Your task to perform on an android device: delete location history Image 0: 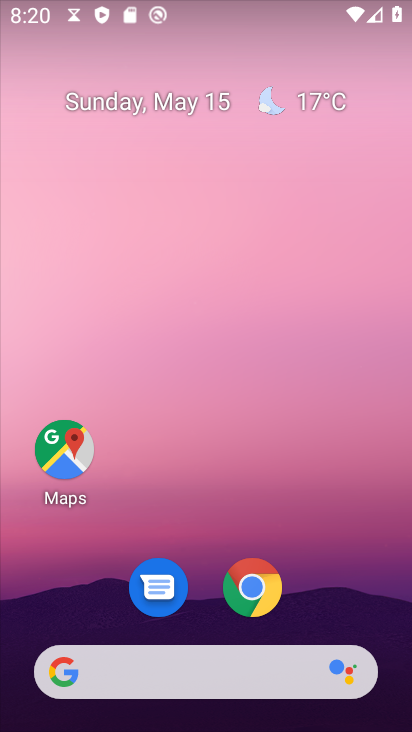
Step 0: drag from (370, 662) to (43, 112)
Your task to perform on an android device: delete location history Image 1: 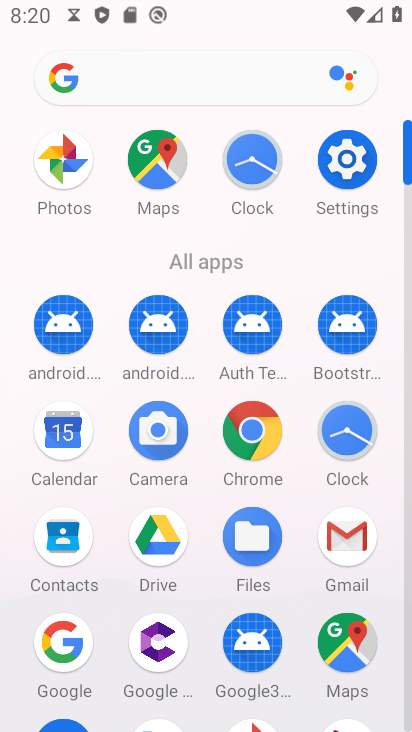
Step 1: click (170, 161)
Your task to perform on an android device: delete location history Image 2: 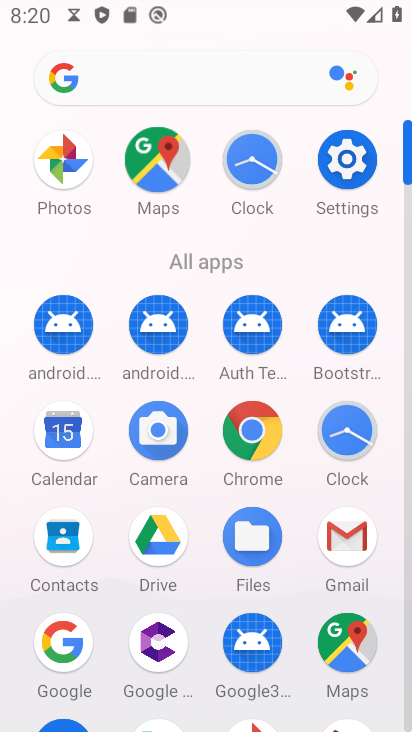
Step 2: click (170, 161)
Your task to perform on an android device: delete location history Image 3: 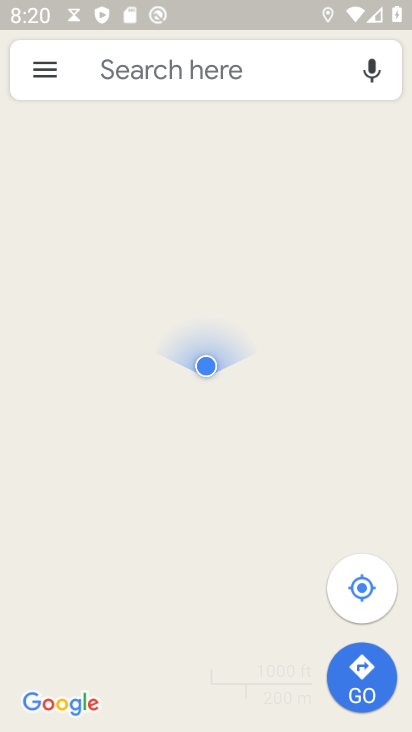
Step 3: click (40, 76)
Your task to perform on an android device: delete location history Image 4: 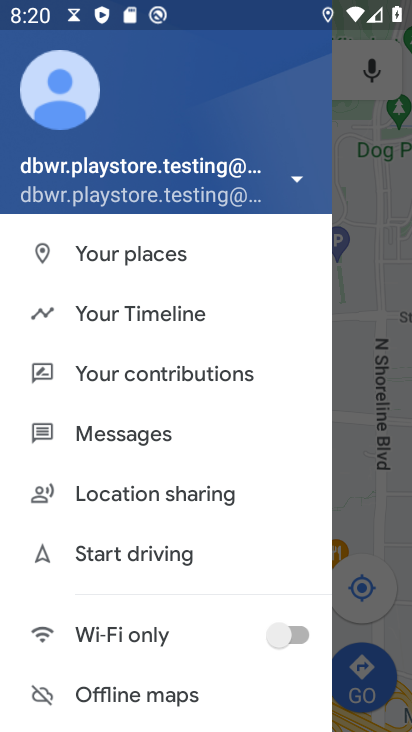
Step 4: click (143, 318)
Your task to perform on an android device: delete location history Image 5: 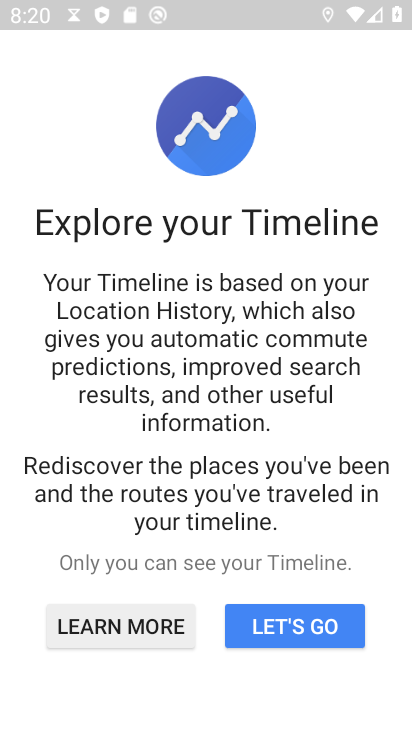
Step 5: click (307, 625)
Your task to perform on an android device: delete location history Image 6: 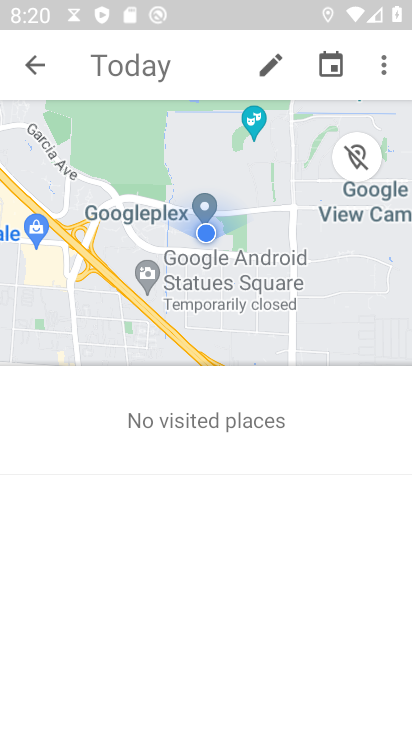
Step 6: click (377, 67)
Your task to perform on an android device: delete location history Image 7: 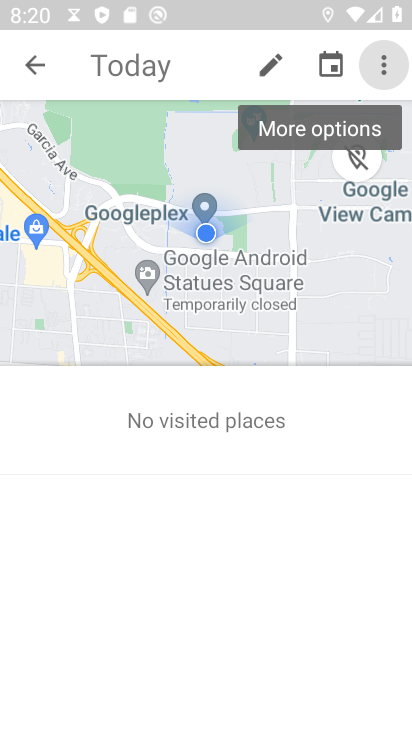
Step 7: click (377, 67)
Your task to perform on an android device: delete location history Image 8: 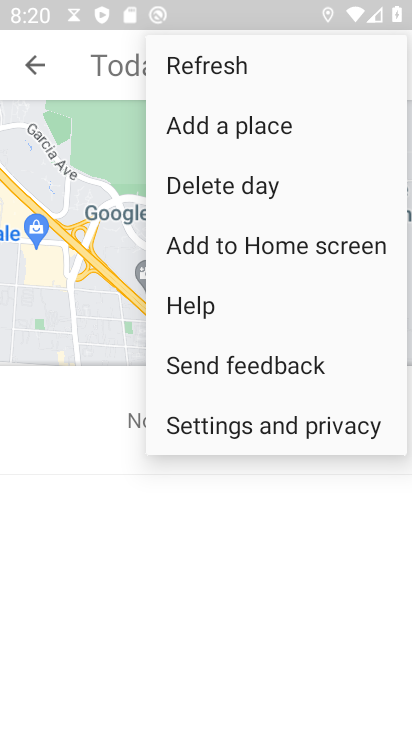
Step 8: click (247, 423)
Your task to perform on an android device: delete location history Image 9: 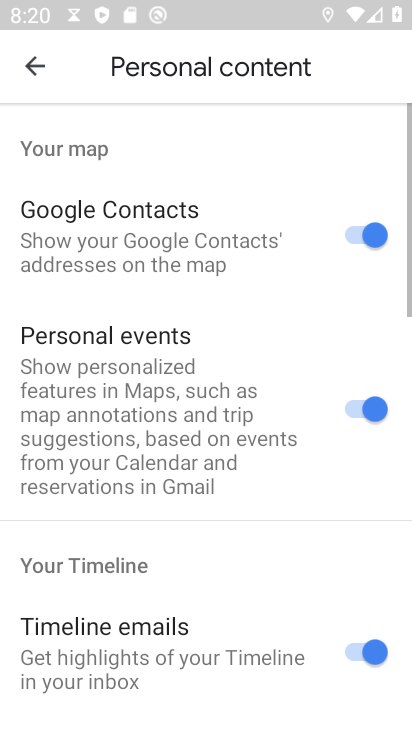
Step 9: drag from (127, 524) to (193, 154)
Your task to perform on an android device: delete location history Image 10: 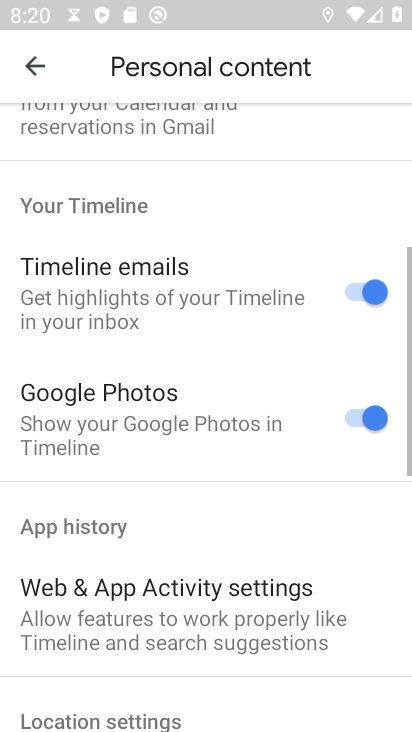
Step 10: drag from (272, 599) to (203, 257)
Your task to perform on an android device: delete location history Image 11: 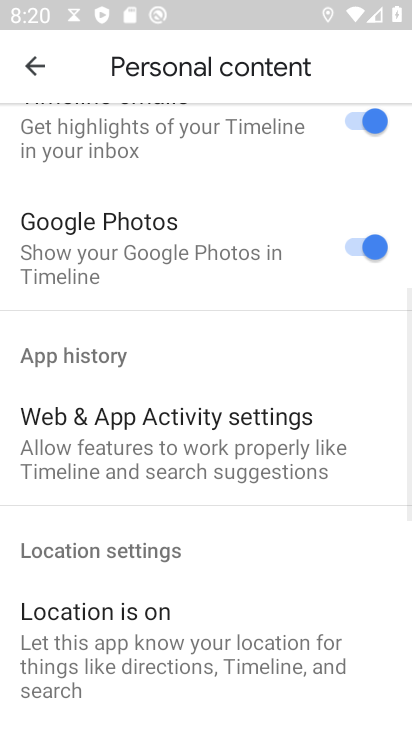
Step 11: drag from (183, 566) to (148, 181)
Your task to perform on an android device: delete location history Image 12: 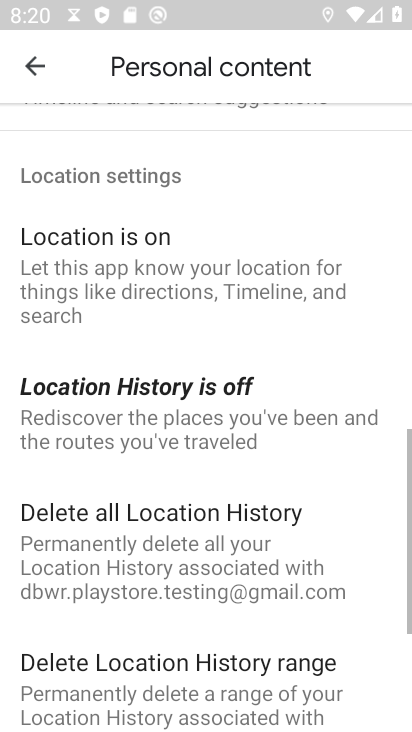
Step 12: drag from (199, 530) to (172, 160)
Your task to perform on an android device: delete location history Image 13: 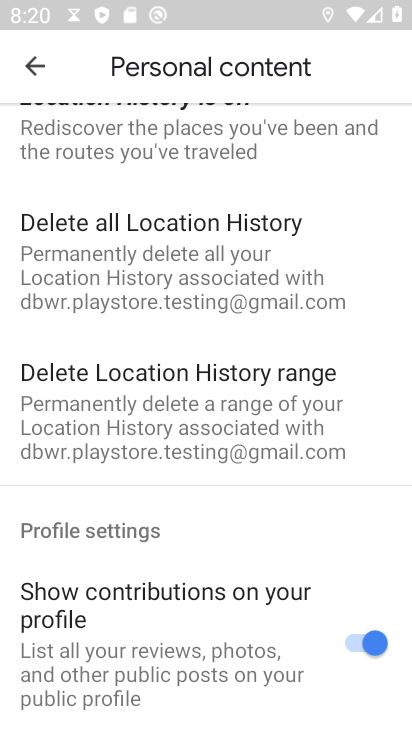
Step 13: click (163, 243)
Your task to perform on an android device: delete location history Image 14: 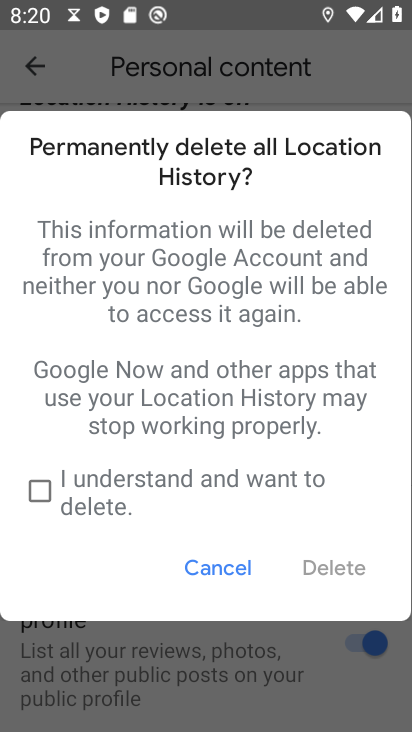
Step 14: click (44, 491)
Your task to perform on an android device: delete location history Image 15: 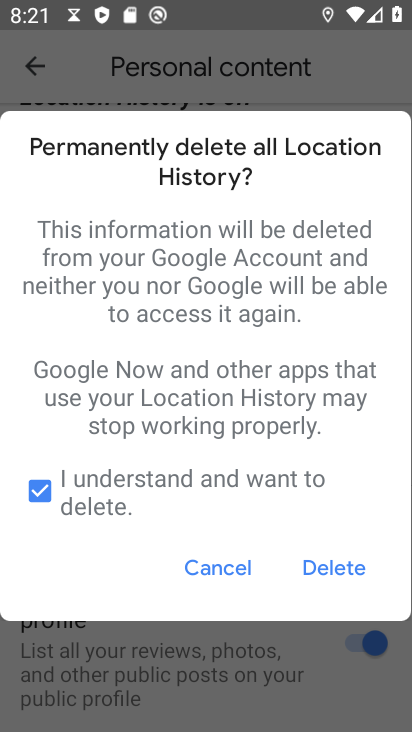
Step 15: click (336, 561)
Your task to perform on an android device: delete location history Image 16: 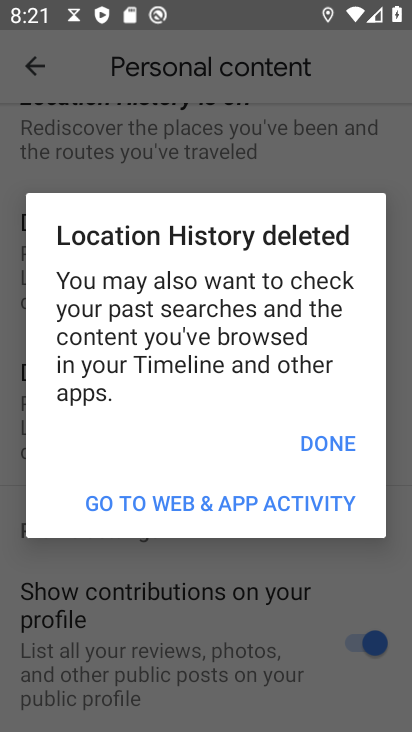
Step 16: click (334, 446)
Your task to perform on an android device: delete location history Image 17: 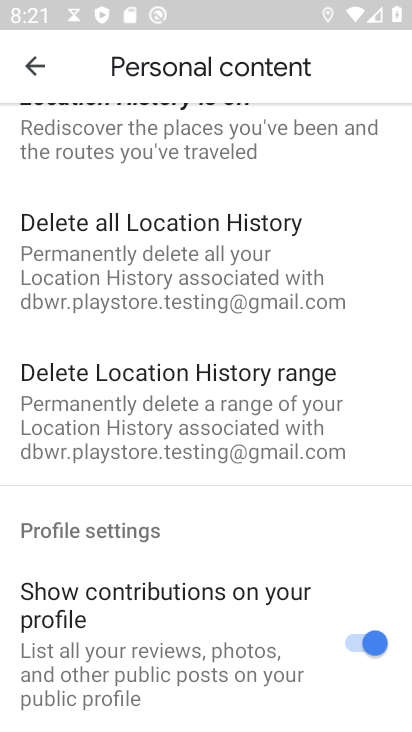
Step 17: task complete